Your task to perform on an android device: turn notification dots on Image 0: 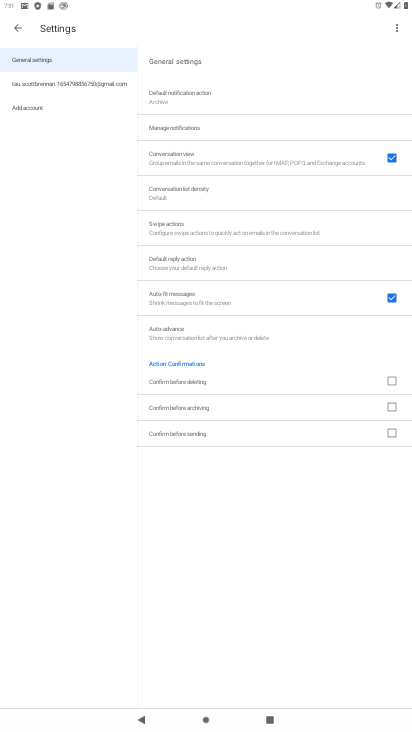
Step 0: press home button
Your task to perform on an android device: turn notification dots on Image 1: 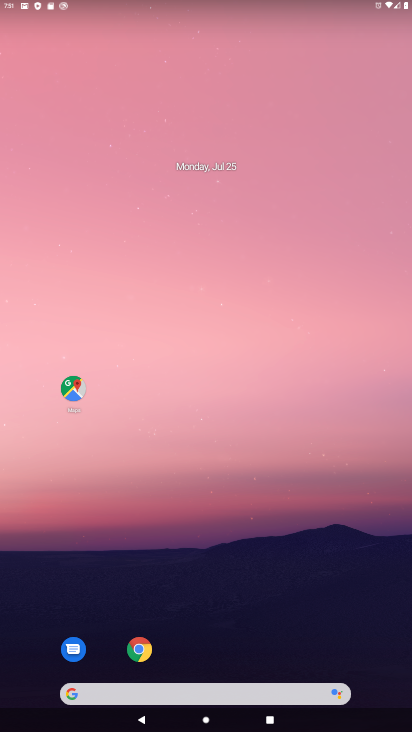
Step 1: drag from (185, 691) to (146, 120)
Your task to perform on an android device: turn notification dots on Image 2: 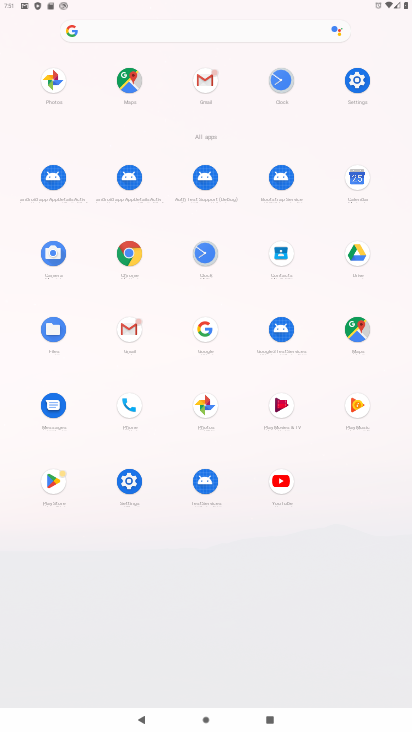
Step 2: click (129, 482)
Your task to perform on an android device: turn notification dots on Image 3: 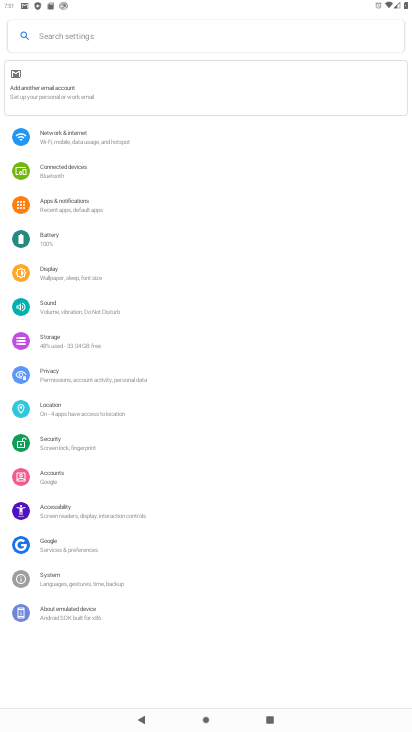
Step 3: click (69, 208)
Your task to perform on an android device: turn notification dots on Image 4: 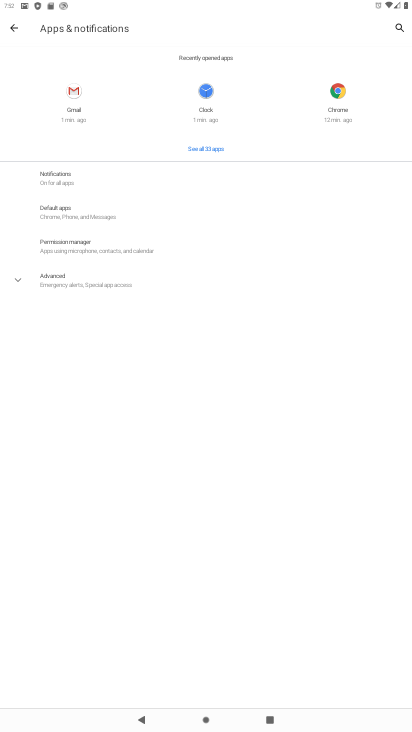
Step 4: click (62, 180)
Your task to perform on an android device: turn notification dots on Image 5: 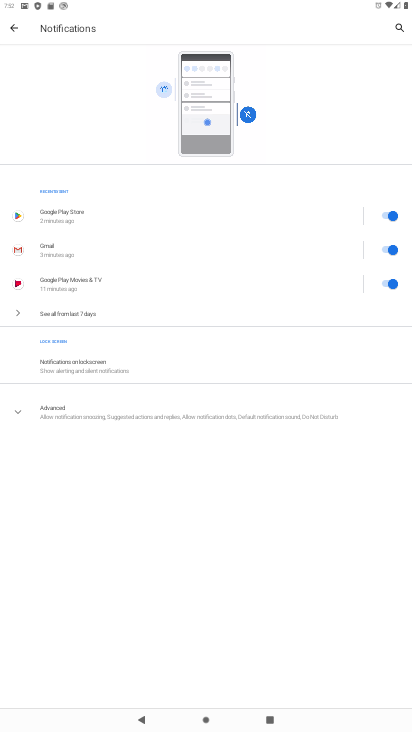
Step 5: click (114, 413)
Your task to perform on an android device: turn notification dots on Image 6: 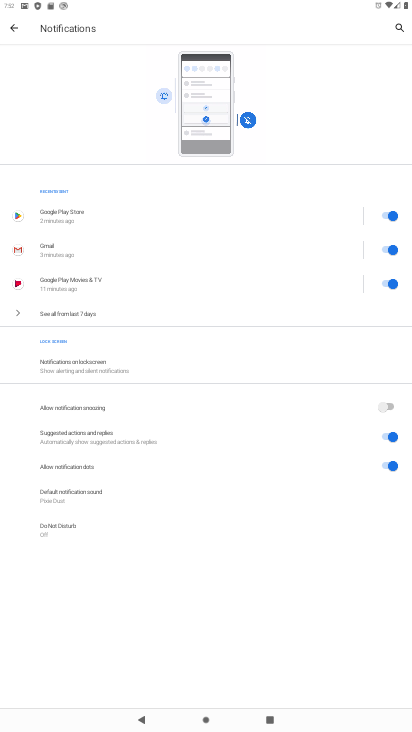
Step 6: task complete